Your task to perform on an android device: see sites visited before in the chrome app Image 0: 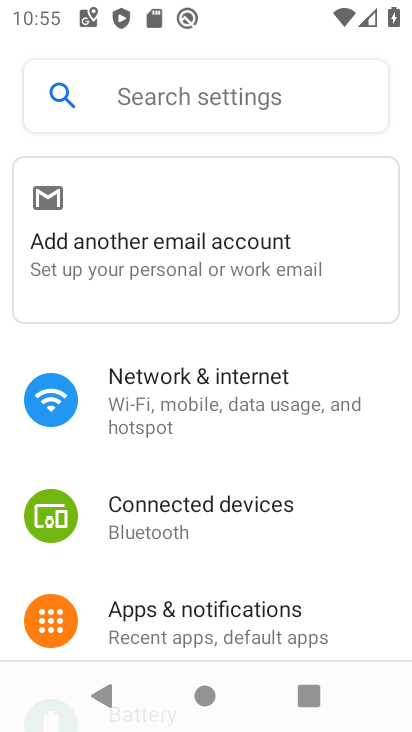
Step 0: press home button
Your task to perform on an android device: see sites visited before in the chrome app Image 1: 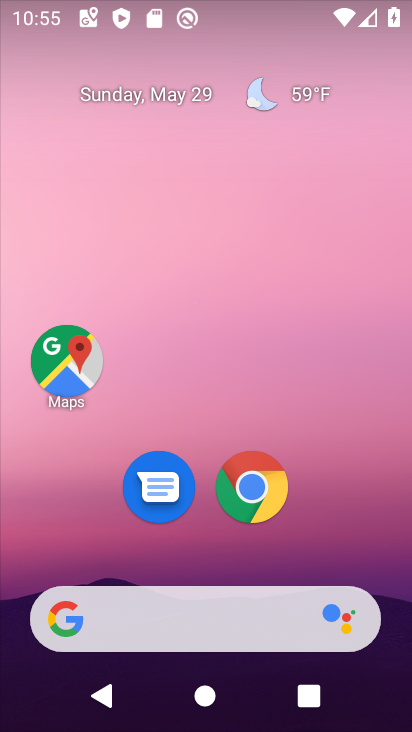
Step 1: click (262, 496)
Your task to perform on an android device: see sites visited before in the chrome app Image 2: 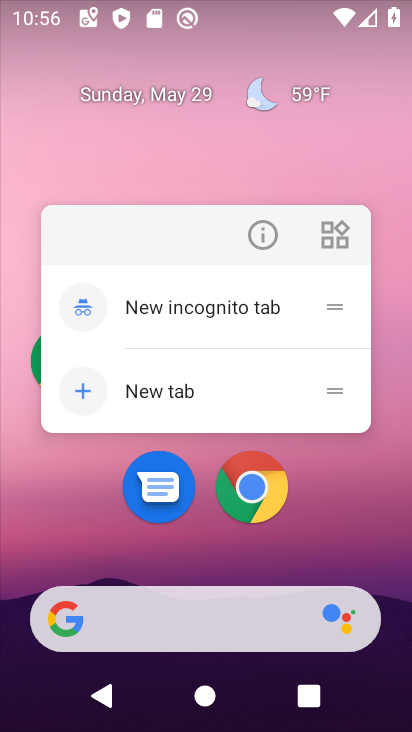
Step 2: click (249, 472)
Your task to perform on an android device: see sites visited before in the chrome app Image 3: 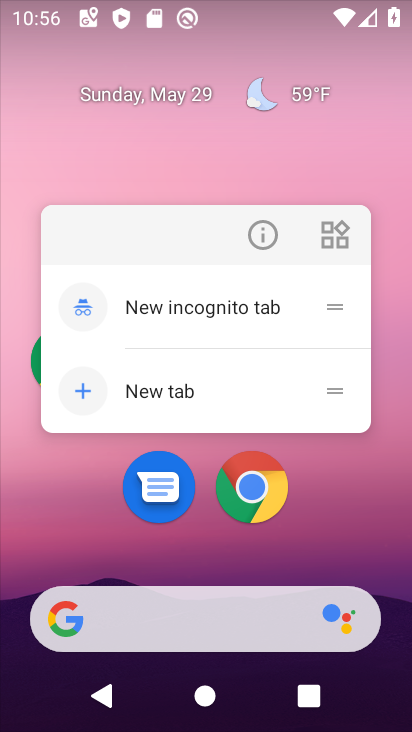
Step 3: click (266, 491)
Your task to perform on an android device: see sites visited before in the chrome app Image 4: 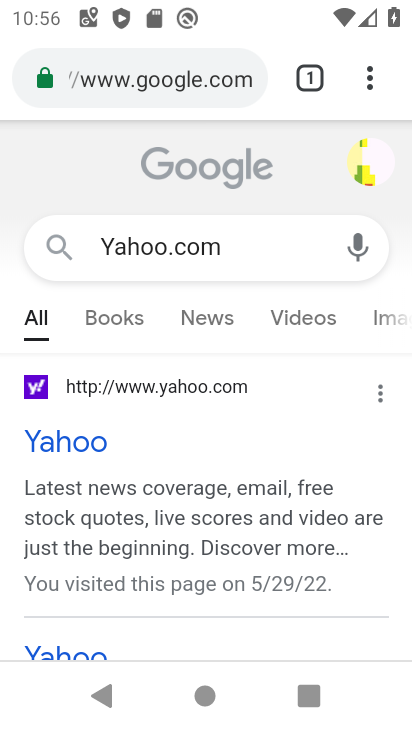
Step 4: click (370, 80)
Your task to perform on an android device: see sites visited before in the chrome app Image 5: 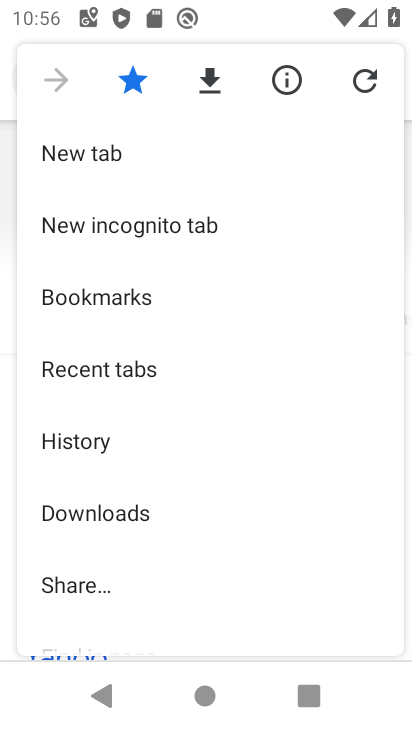
Step 5: drag from (241, 595) to (223, 244)
Your task to perform on an android device: see sites visited before in the chrome app Image 6: 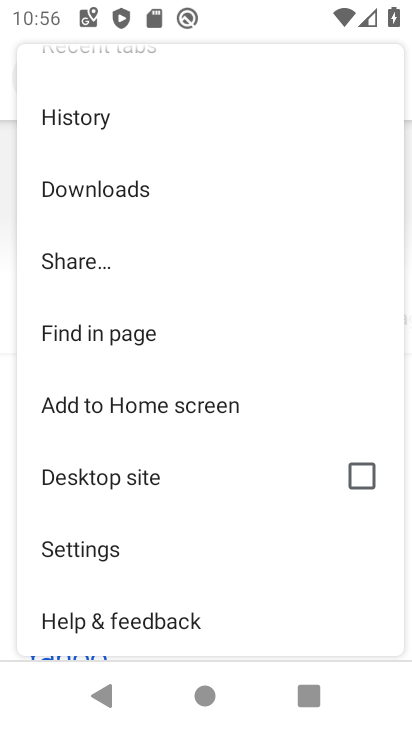
Step 6: drag from (257, 592) to (244, 337)
Your task to perform on an android device: see sites visited before in the chrome app Image 7: 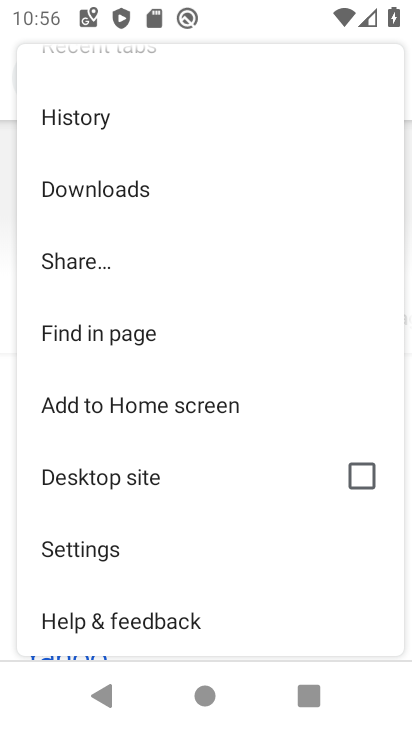
Step 7: drag from (262, 617) to (219, 234)
Your task to perform on an android device: see sites visited before in the chrome app Image 8: 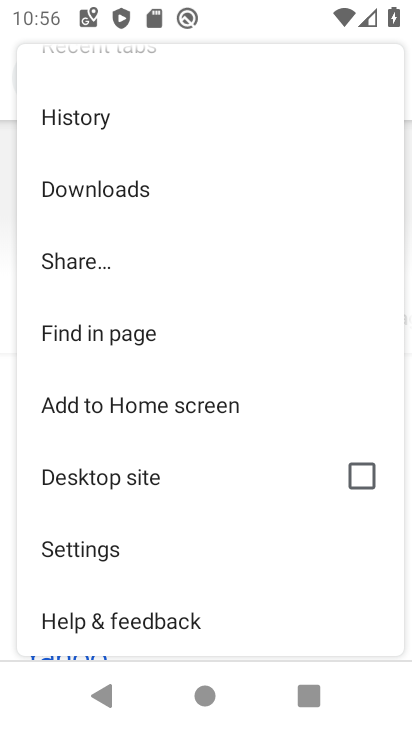
Step 8: drag from (248, 613) to (268, 166)
Your task to perform on an android device: see sites visited before in the chrome app Image 9: 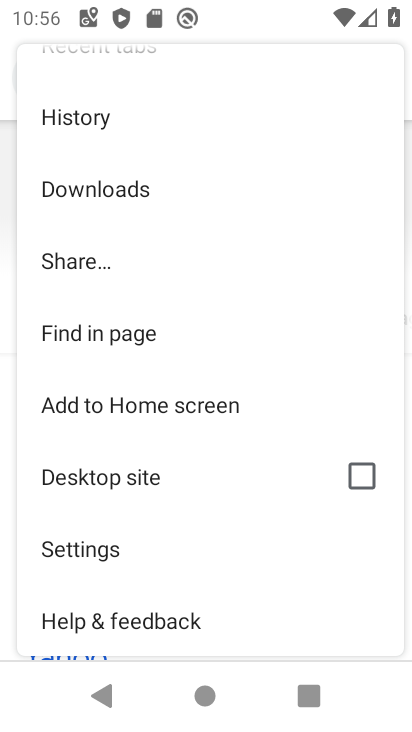
Step 9: click (117, 553)
Your task to perform on an android device: see sites visited before in the chrome app Image 10: 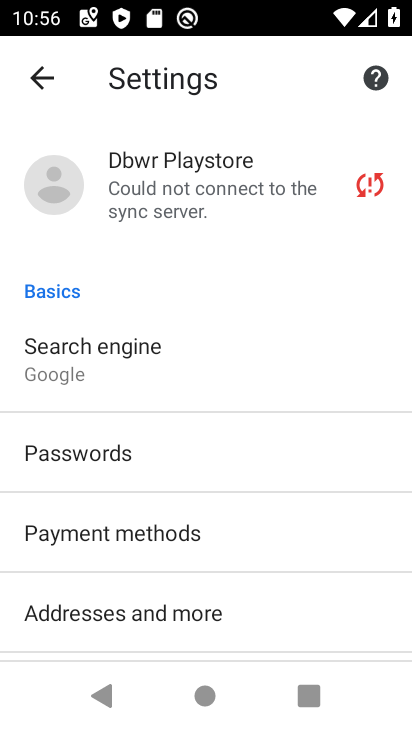
Step 10: drag from (265, 615) to (205, 125)
Your task to perform on an android device: see sites visited before in the chrome app Image 11: 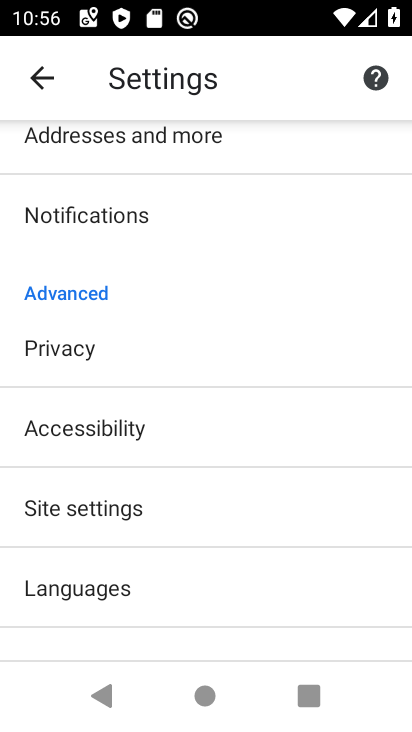
Step 11: click (100, 511)
Your task to perform on an android device: see sites visited before in the chrome app Image 12: 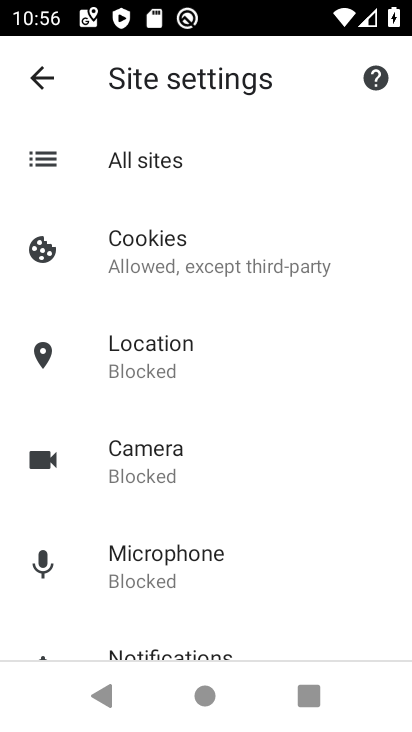
Step 12: click (44, 78)
Your task to perform on an android device: see sites visited before in the chrome app Image 13: 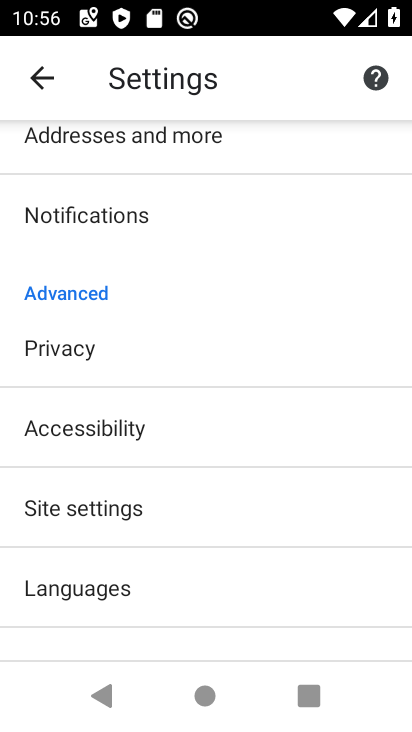
Step 13: click (35, 75)
Your task to perform on an android device: see sites visited before in the chrome app Image 14: 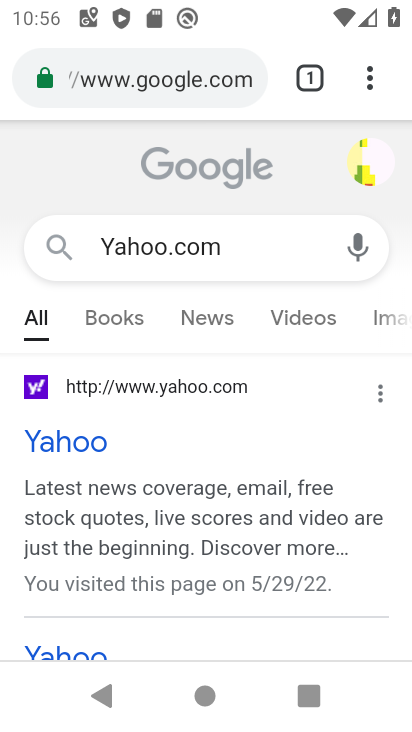
Step 14: click (368, 72)
Your task to perform on an android device: see sites visited before in the chrome app Image 15: 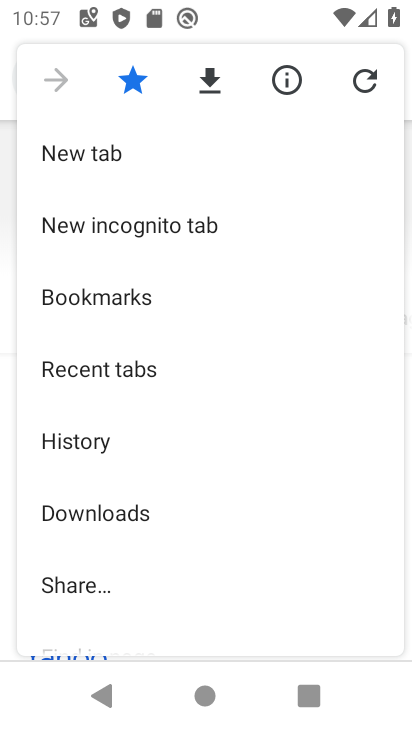
Step 15: click (82, 367)
Your task to perform on an android device: see sites visited before in the chrome app Image 16: 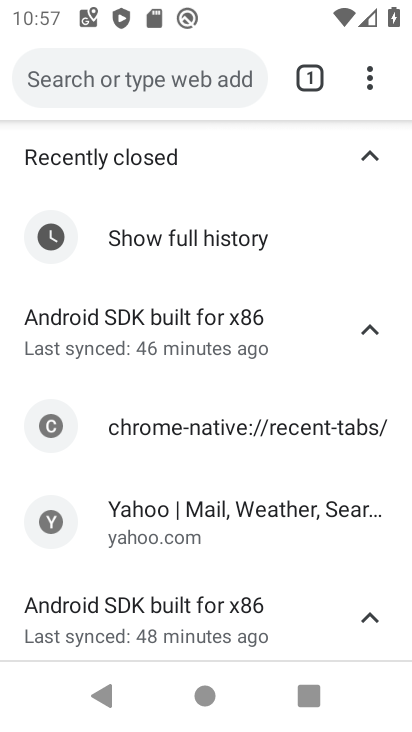
Step 16: task complete